Your task to perform on an android device: turn on the 12-hour format for clock Image 0: 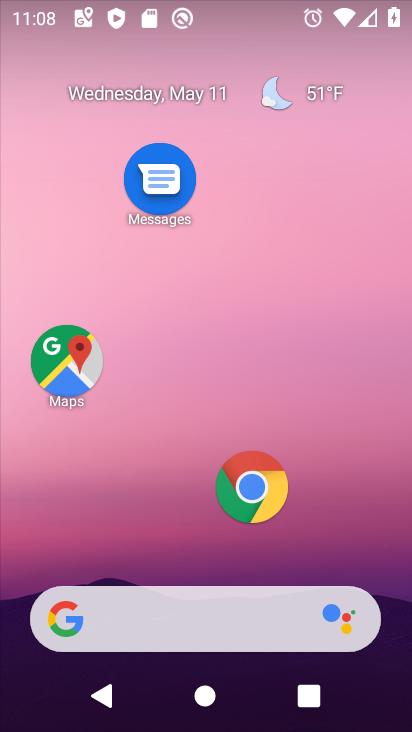
Step 0: drag from (183, 559) to (265, 164)
Your task to perform on an android device: turn on the 12-hour format for clock Image 1: 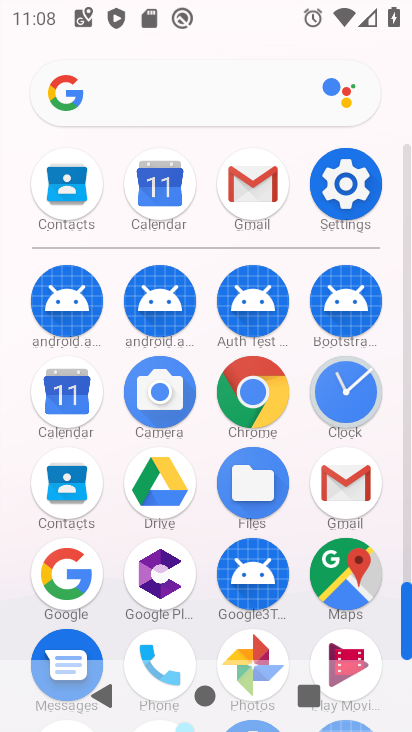
Step 1: click (327, 376)
Your task to perform on an android device: turn on the 12-hour format for clock Image 2: 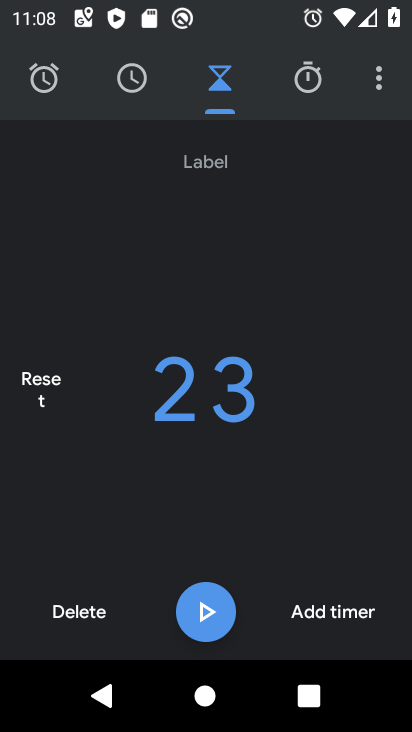
Step 2: click (373, 73)
Your task to perform on an android device: turn on the 12-hour format for clock Image 3: 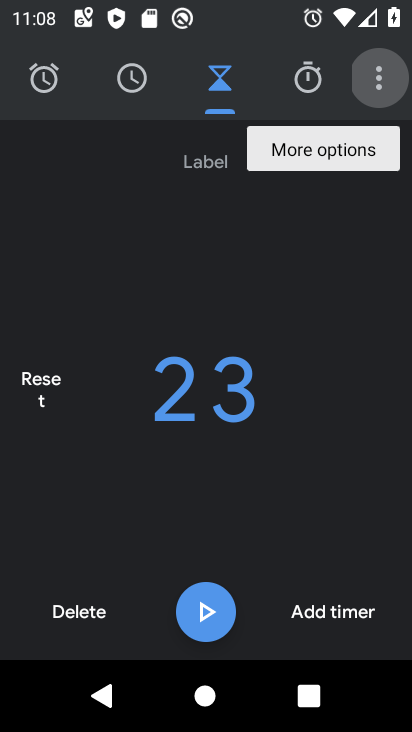
Step 3: click (373, 73)
Your task to perform on an android device: turn on the 12-hour format for clock Image 4: 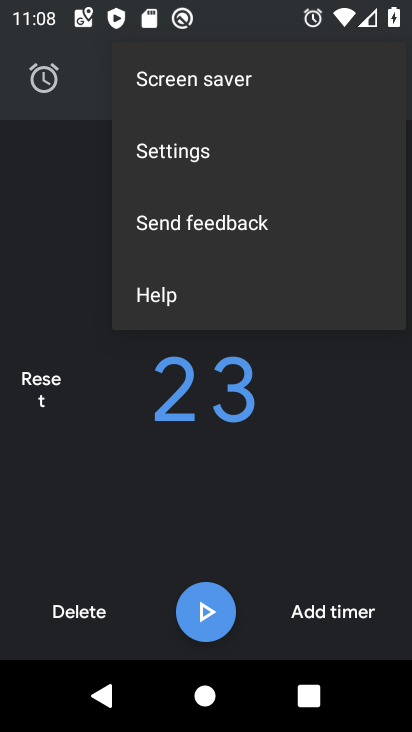
Step 4: click (213, 156)
Your task to perform on an android device: turn on the 12-hour format for clock Image 5: 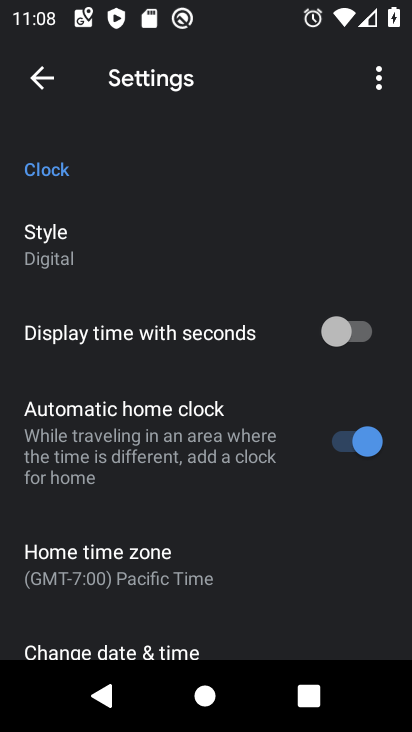
Step 5: drag from (120, 517) to (148, 304)
Your task to perform on an android device: turn on the 12-hour format for clock Image 6: 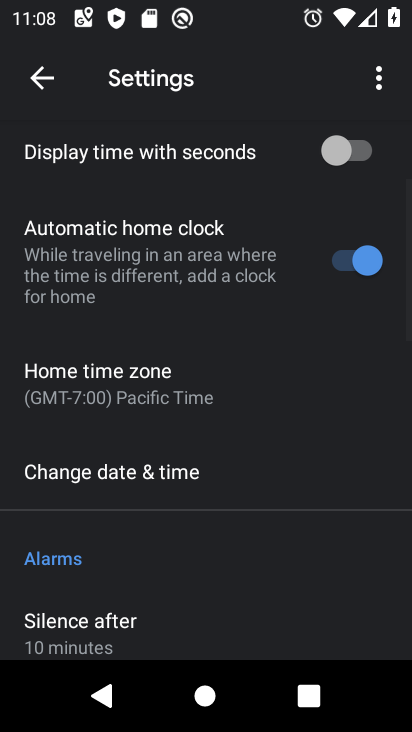
Step 6: click (140, 464)
Your task to perform on an android device: turn on the 12-hour format for clock Image 7: 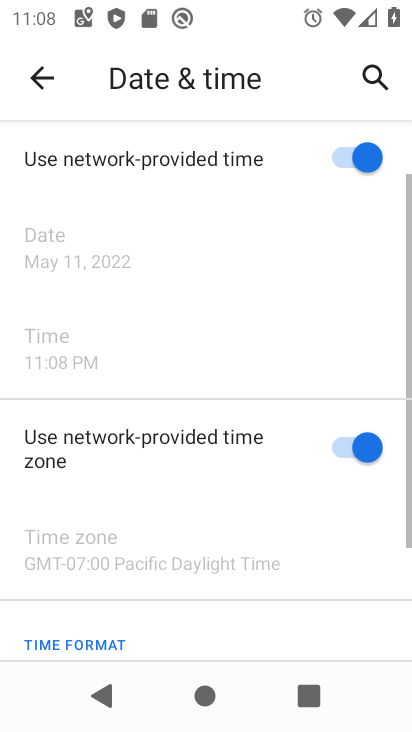
Step 7: task complete